Your task to perform on an android device: set an alarm Image 0: 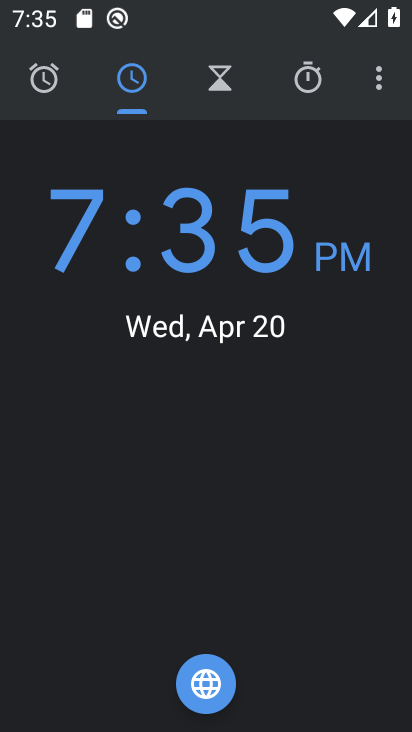
Step 0: press home button
Your task to perform on an android device: set an alarm Image 1: 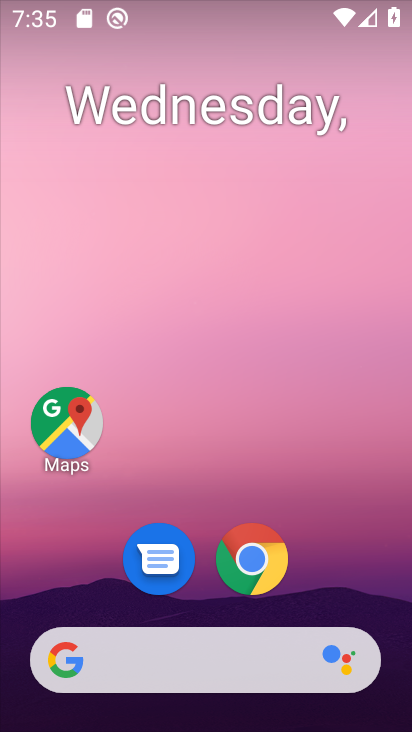
Step 1: drag from (385, 598) to (377, 105)
Your task to perform on an android device: set an alarm Image 2: 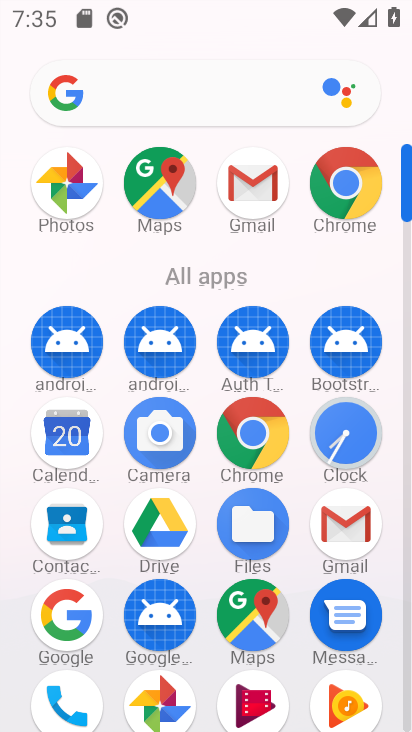
Step 2: drag from (383, 492) to (382, 239)
Your task to perform on an android device: set an alarm Image 3: 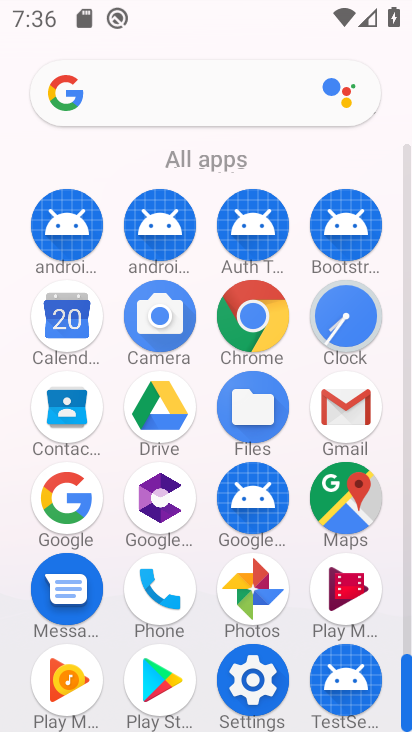
Step 3: drag from (391, 597) to (387, 277)
Your task to perform on an android device: set an alarm Image 4: 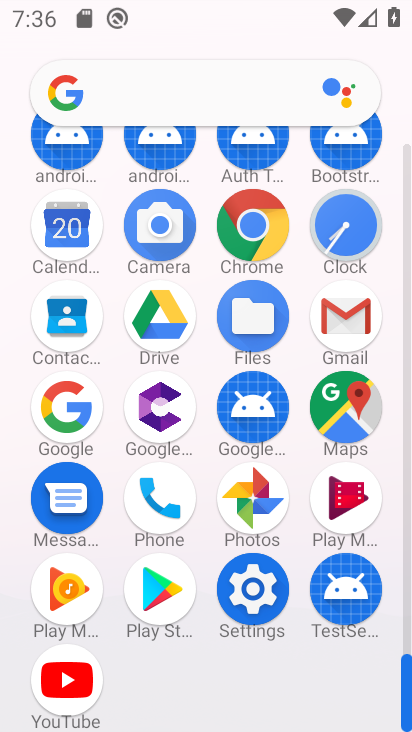
Step 4: click (355, 225)
Your task to perform on an android device: set an alarm Image 5: 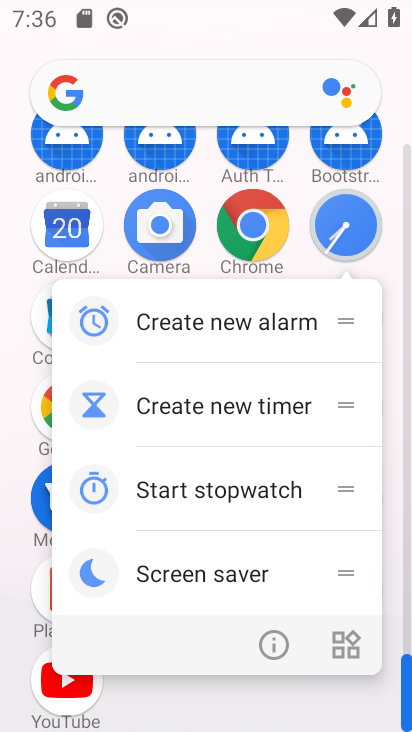
Step 5: click (354, 238)
Your task to perform on an android device: set an alarm Image 6: 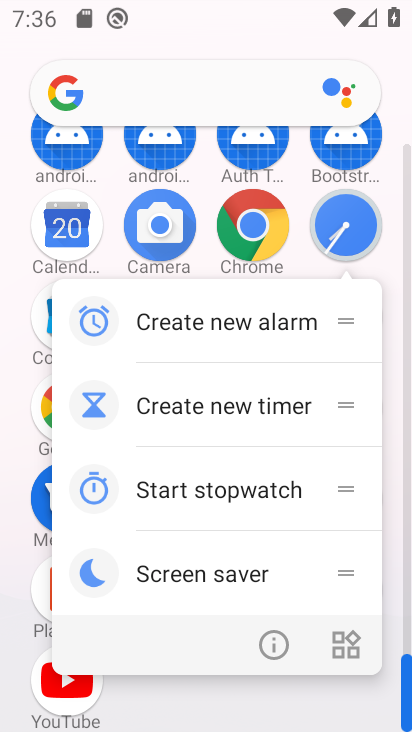
Step 6: click (371, 216)
Your task to perform on an android device: set an alarm Image 7: 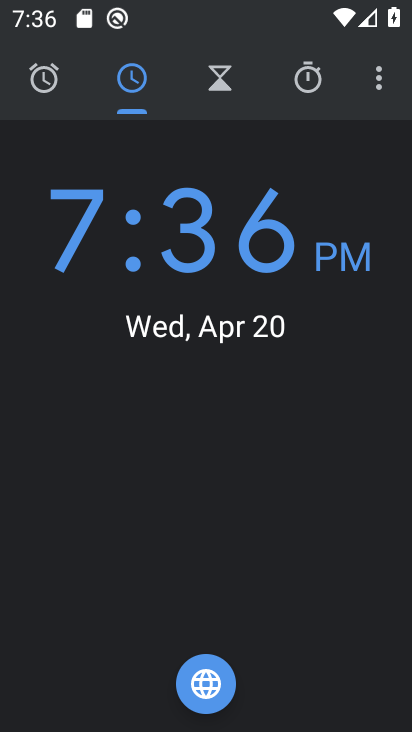
Step 7: click (29, 76)
Your task to perform on an android device: set an alarm Image 8: 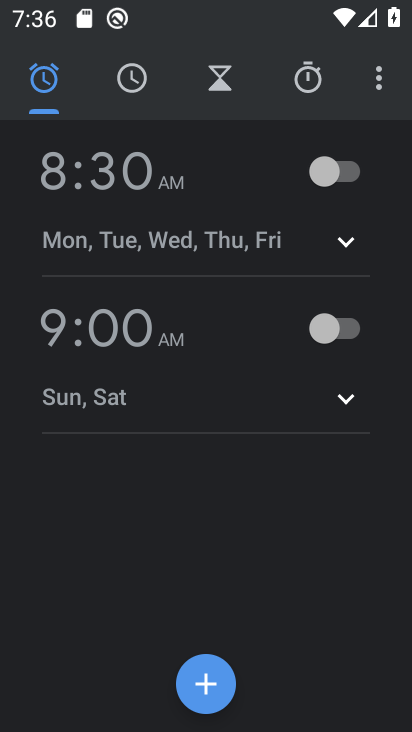
Step 8: click (197, 701)
Your task to perform on an android device: set an alarm Image 9: 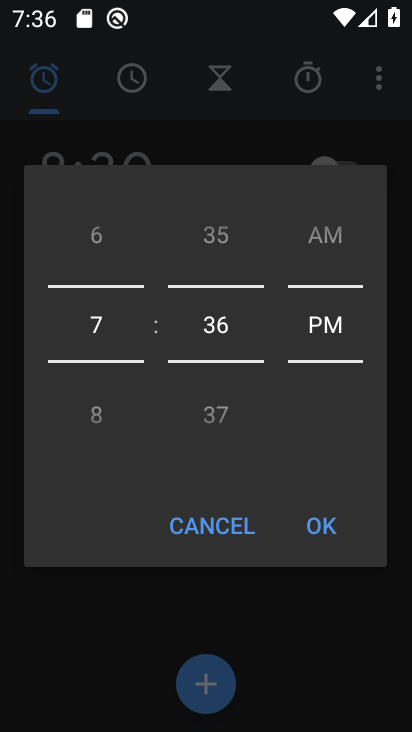
Step 9: click (313, 523)
Your task to perform on an android device: set an alarm Image 10: 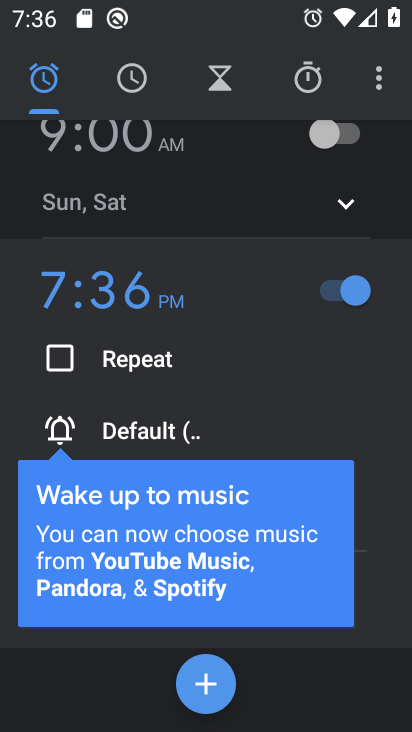
Step 10: task complete